Your task to perform on an android device: Check the news Image 0: 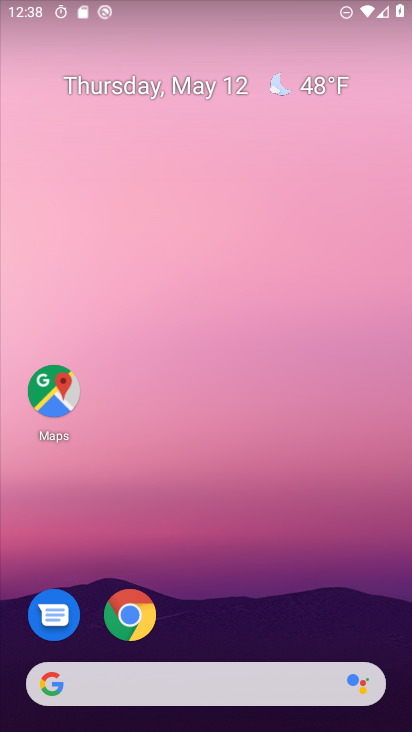
Step 0: click (130, 614)
Your task to perform on an android device: Check the news Image 1: 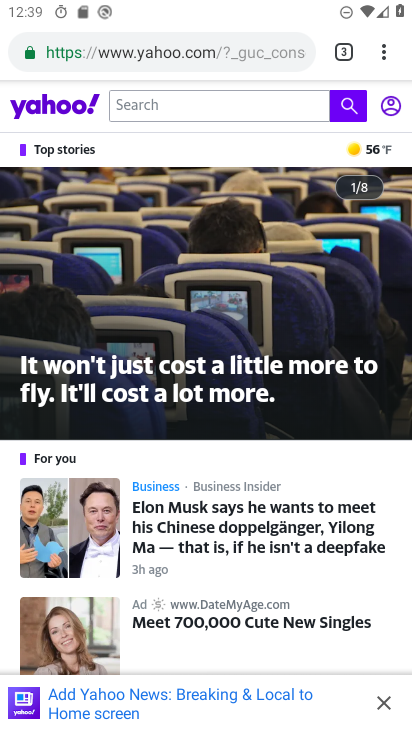
Step 1: click (216, 57)
Your task to perform on an android device: Check the news Image 2: 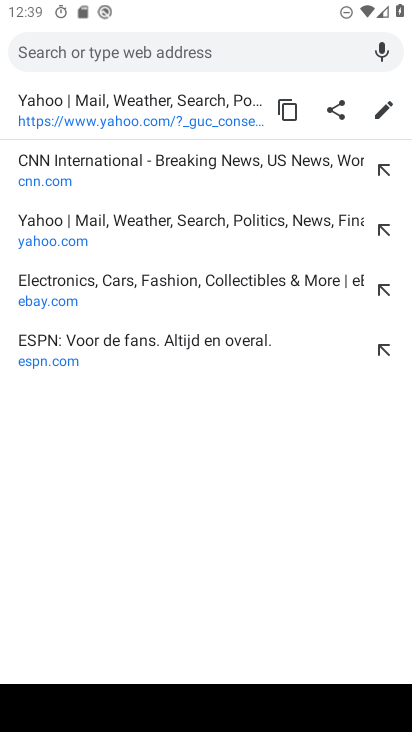
Step 2: type "news"
Your task to perform on an android device: Check the news Image 3: 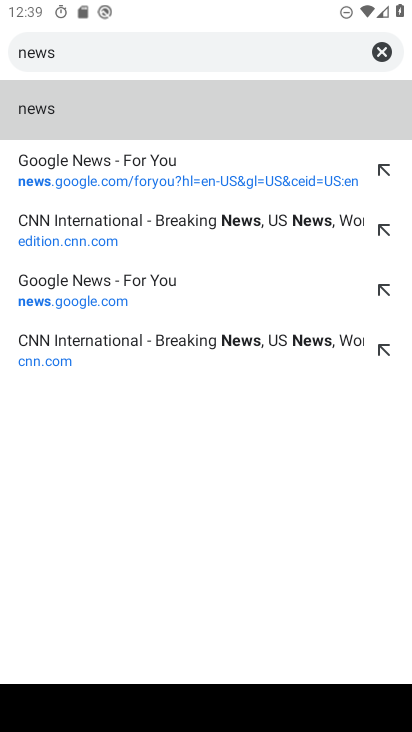
Step 3: click (75, 124)
Your task to perform on an android device: Check the news Image 4: 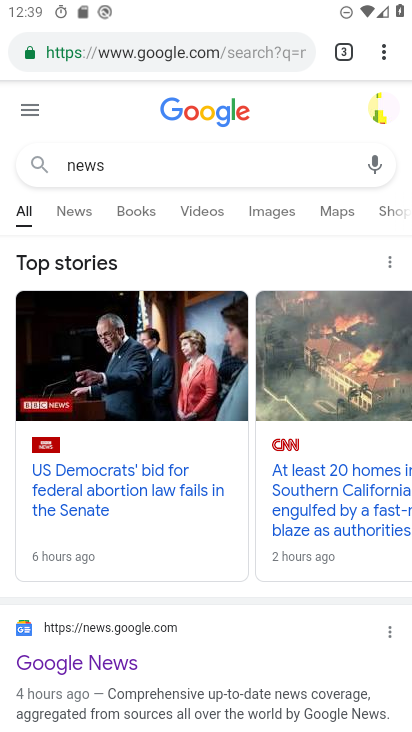
Step 4: click (98, 663)
Your task to perform on an android device: Check the news Image 5: 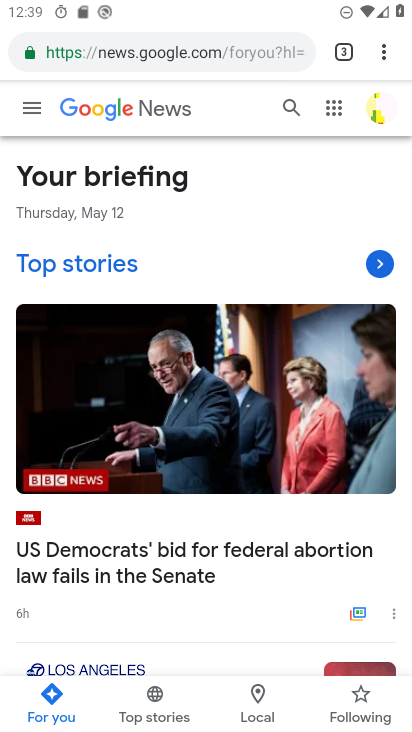
Step 5: task complete